Your task to perform on an android device: add a contact in the contacts app Image 0: 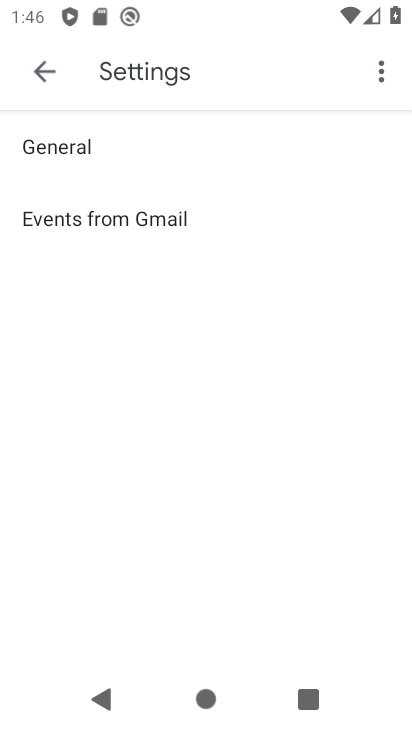
Step 0: press back button
Your task to perform on an android device: add a contact in the contacts app Image 1: 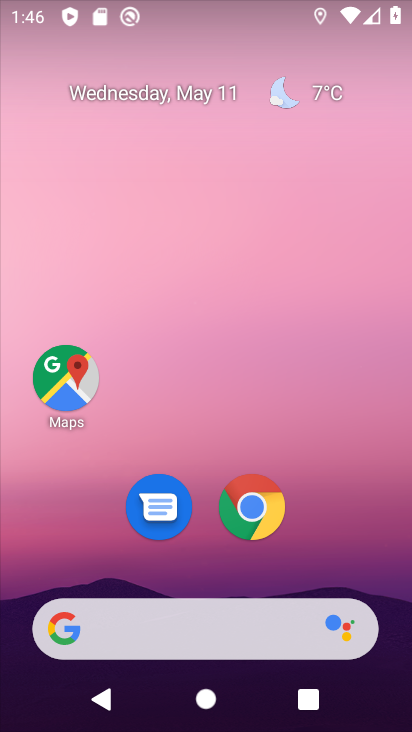
Step 1: drag from (321, 555) to (208, 51)
Your task to perform on an android device: add a contact in the contacts app Image 2: 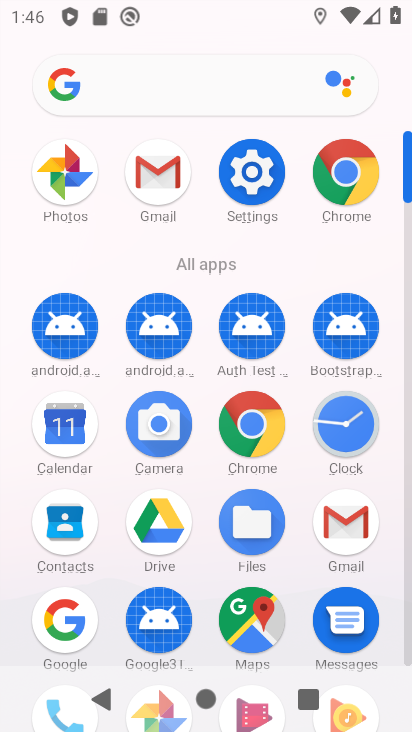
Step 2: drag from (7, 572) to (13, 295)
Your task to perform on an android device: add a contact in the contacts app Image 3: 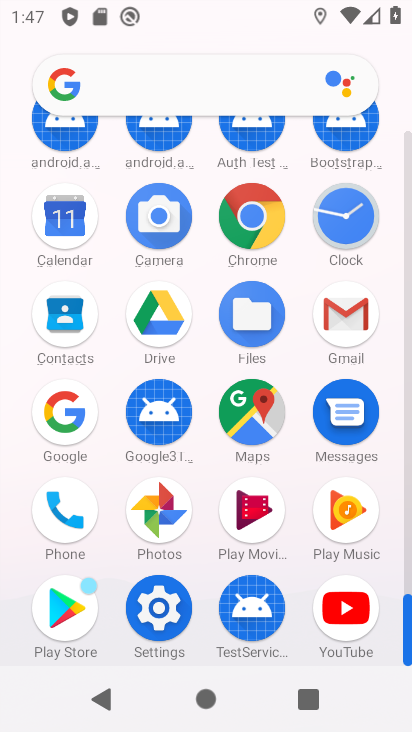
Step 3: click (55, 308)
Your task to perform on an android device: add a contact in the contacts app Image 4: 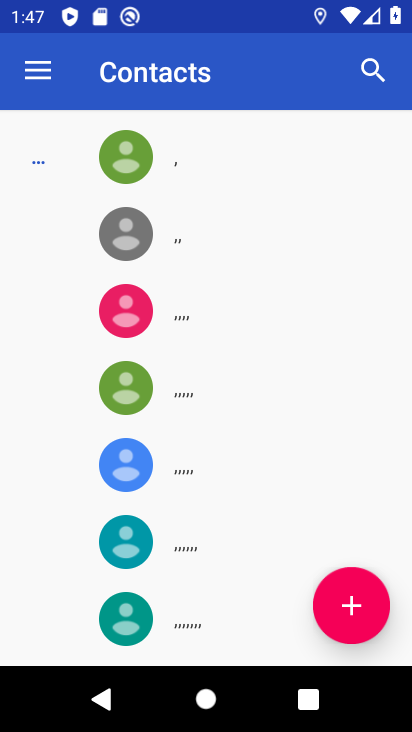
Step 4: click (344, 593)
Your task to perform on an android device: add a contact in the contacts app Image 5: 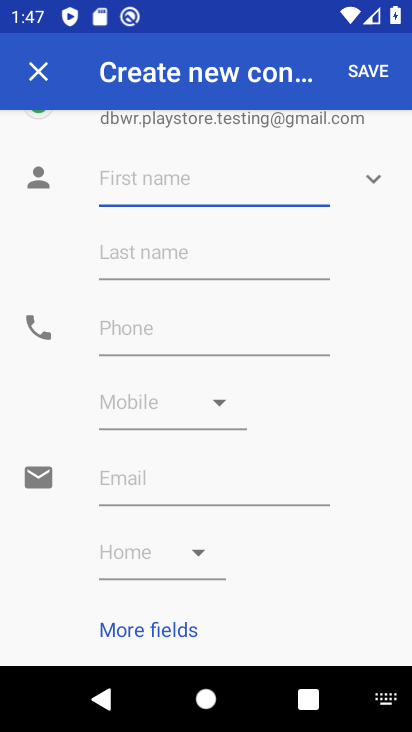
Step 5: type "SDFGHJ"
Your task to perform on an android device: add a contact in the contacts app Image 6: 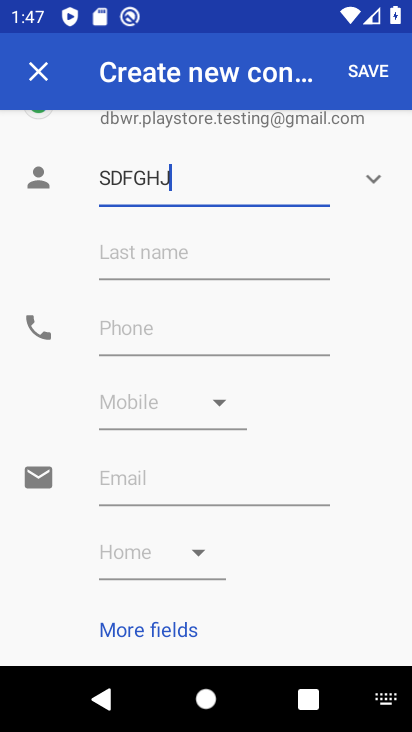
Step 6: type ""
Your task to perform on an android device: add a contact in the contacts app Image 7: 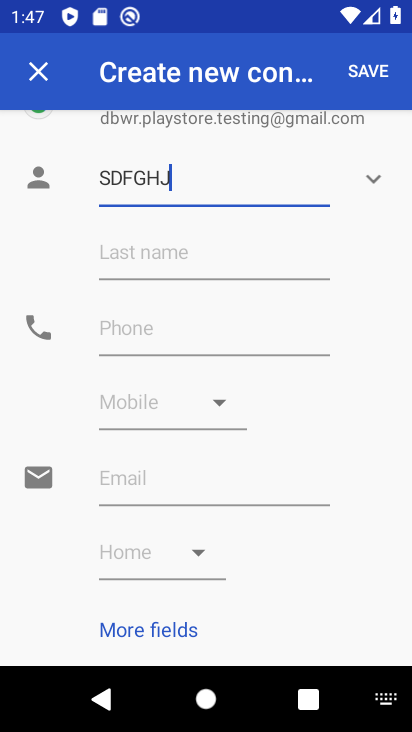
Step 7: click (146, 327)
Your task to perform on an android device: add a contact in the contacts app Image 8: 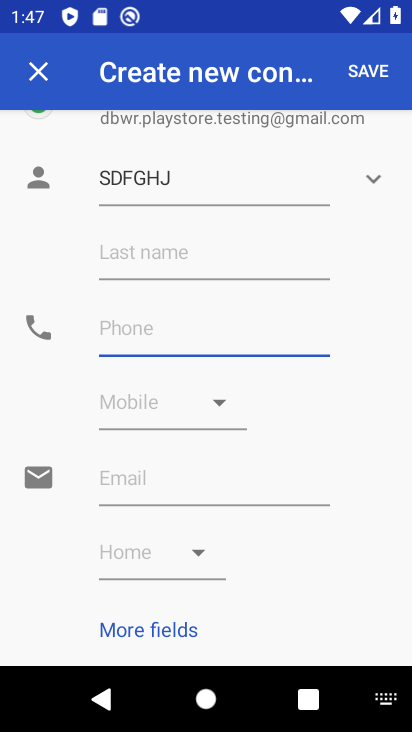
Step 8: type "234566545"
Your task to perform on an android device: add a contact in the contacts app Image 9: 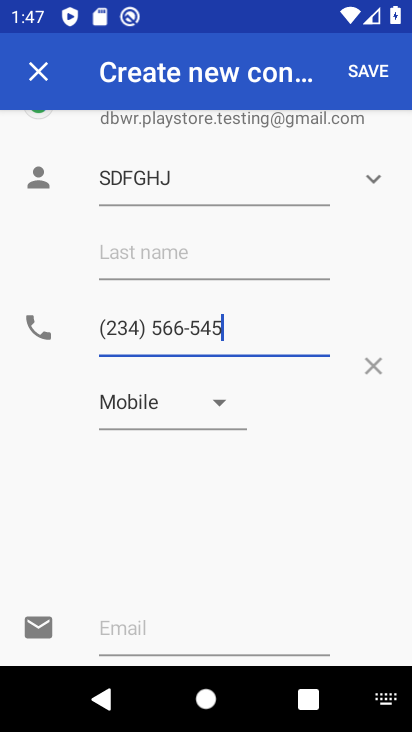
Step 9: type ""
Your task to perform on an android device: add a contact in the contacts app Image 10: 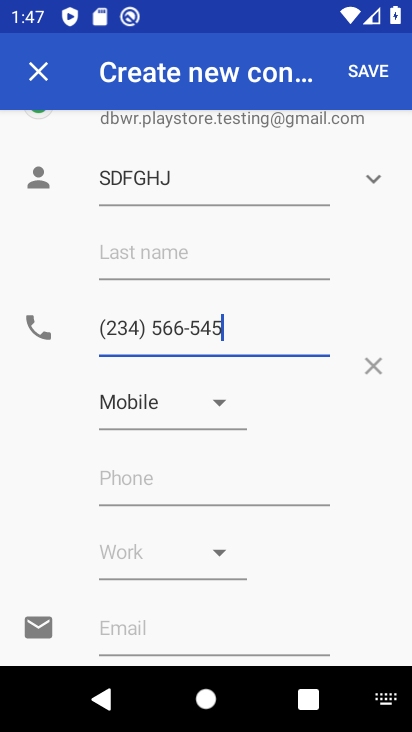
Step 10: click (364, 70)
Your task to perform on an android device: add a contact in the contacts app Image 11: 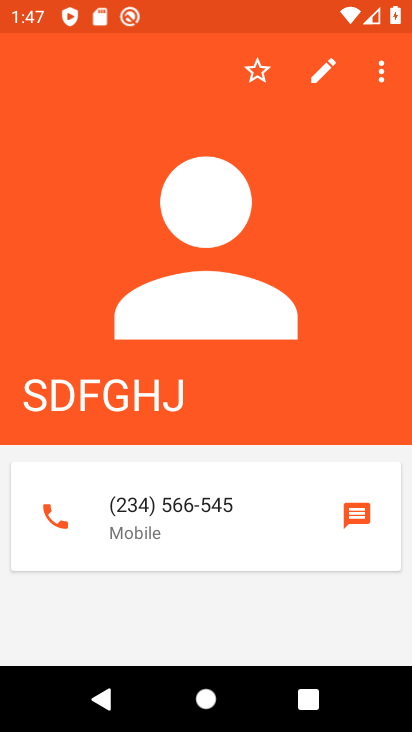
Step 11: task complete